Your task to perform on an android device: Show me productivity apps on the Play Store Image 0: 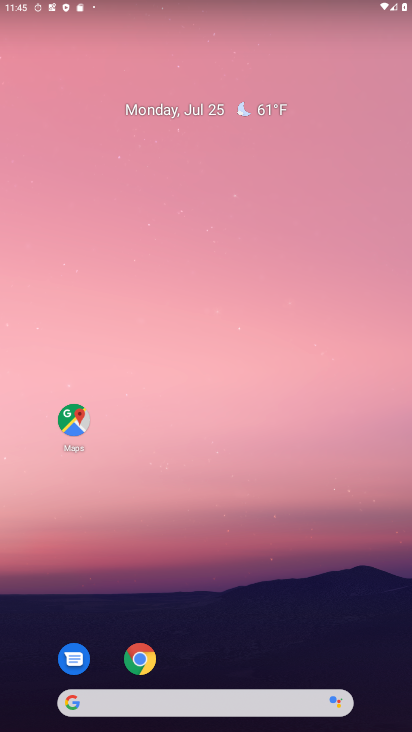
Step 0: drag from (19, 681) to (128, 258)
Your task to perform on an android device: Show me productivity apps on the Play Store Image 1: 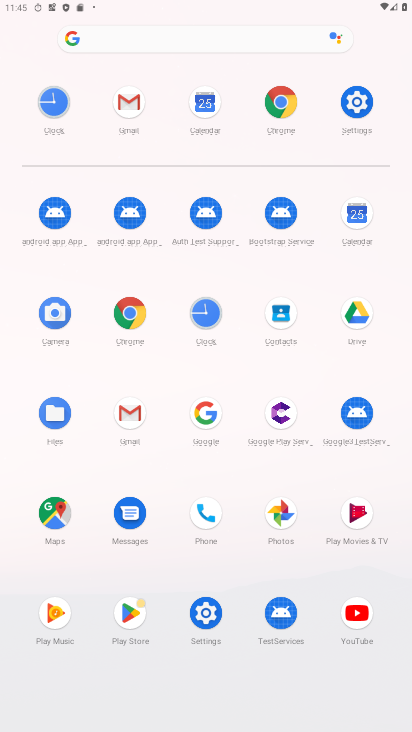
Step 1: click (215, 622)
Your task to perform on an android device: Show me productivity apps on the Play Store Image 2: 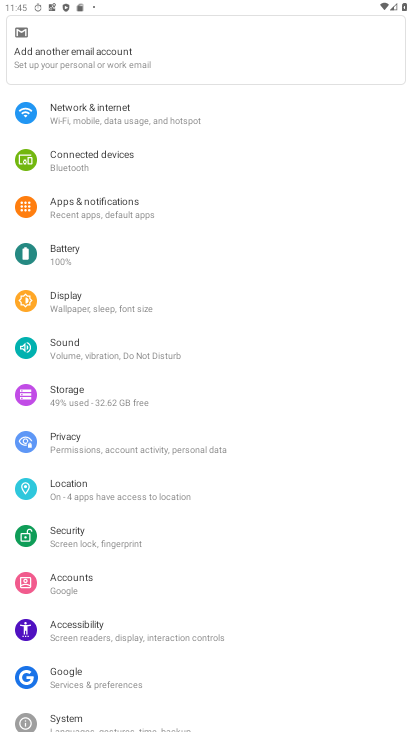
Step 2: press home button
Your task to perform on an android device: Show me productivity apps on the Play Store Image 3: 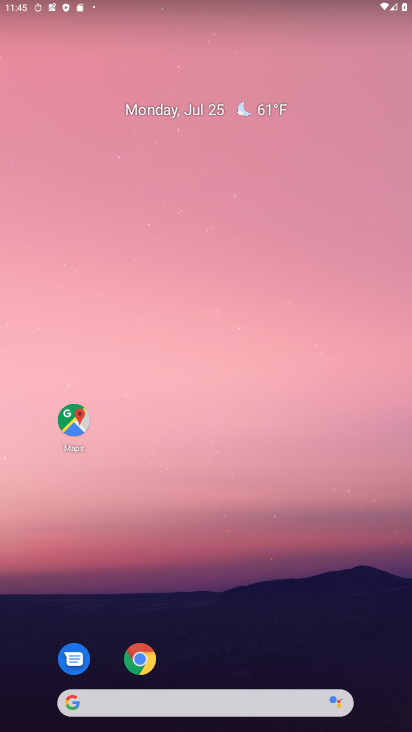
Step 3: drag from (106, 365) to (219, 10)
Your task to perform on an android device: Show me productivity apps on the Play Store Image 4: 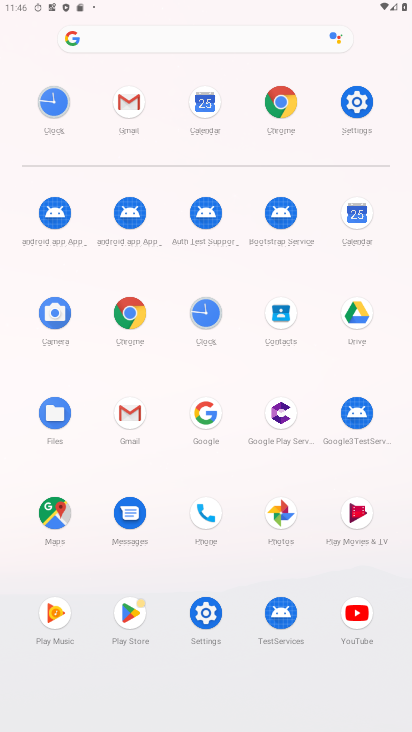
Step 4: click (121, 619)
Your task to perform on an android device: Show me productivity apps on the Play Store Image 5: 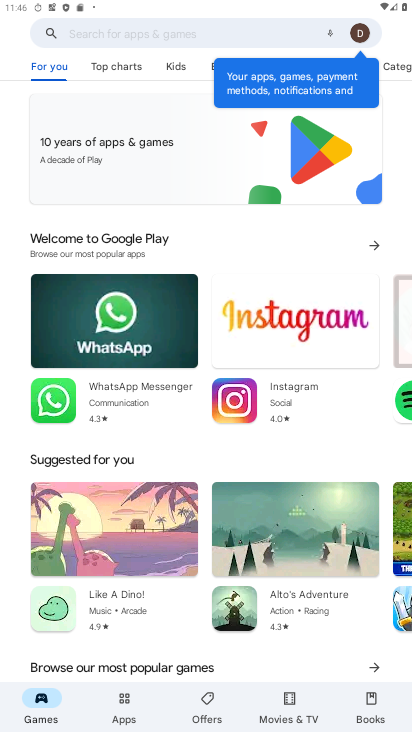
Step 5: click (92, 31)
Your task to perform on an android device: Show me productivity apps on the Play Store Image 6: 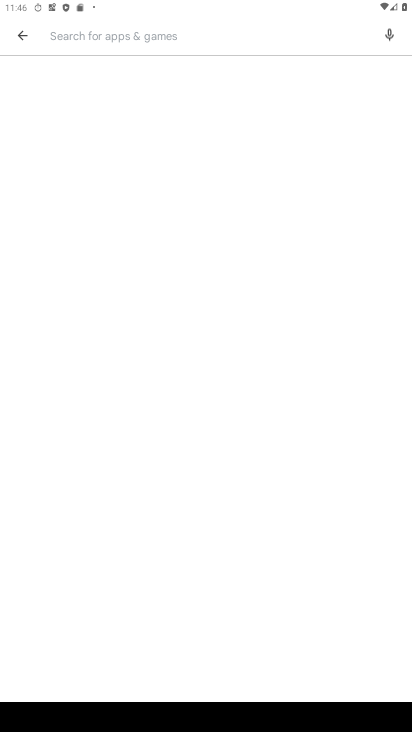
Step 6: type " productivity apps"
Your task to perform on an android device: Show me productivity apps on the Play Store Image 7: 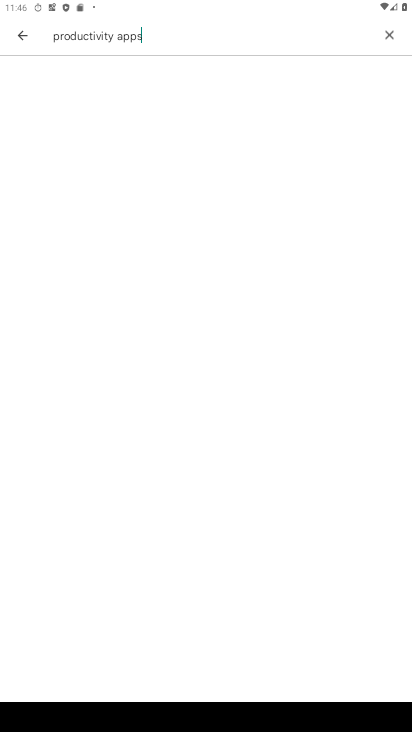
Step 7: type ""
Your task to perform on an android device: Show me productivity apps on the Play Store Image 8: 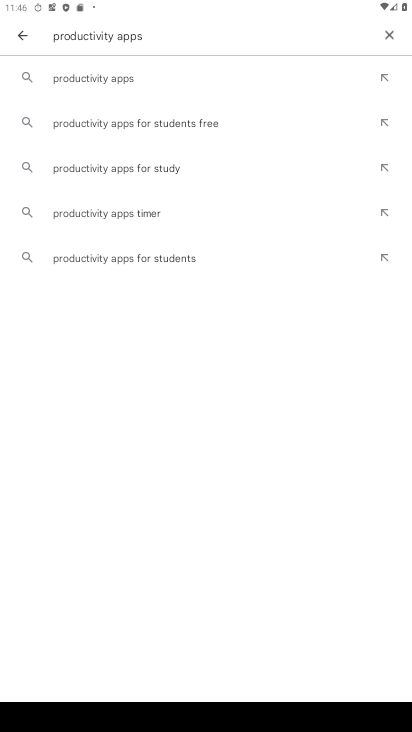
Step 8: click (92, 80)
Your task to perform on an android device: Show me productivity apps on the Play Store Image 9: 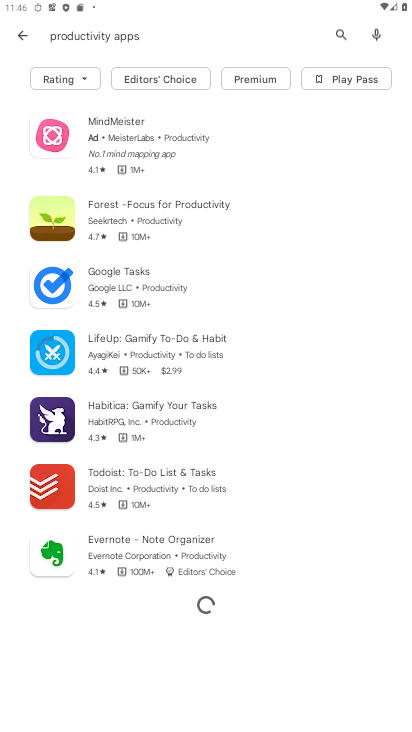
Step 9: task complete